Your task to perform on an android device: Show me recent news Image 0: 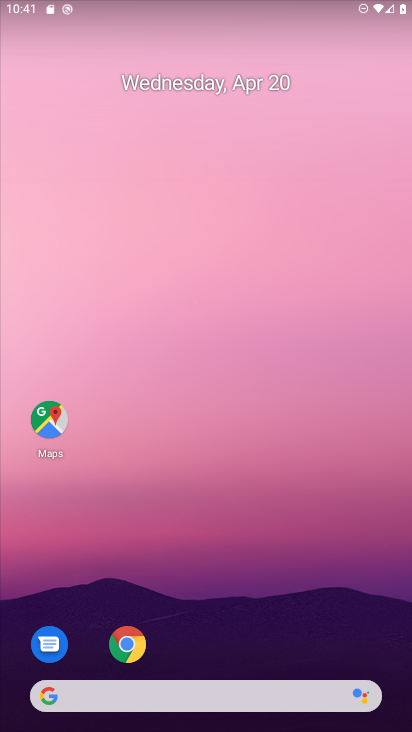
Step 0: drag from (366, 625) to (257, 52)
Your task to perform on an android device: Show me recent news Image 1: 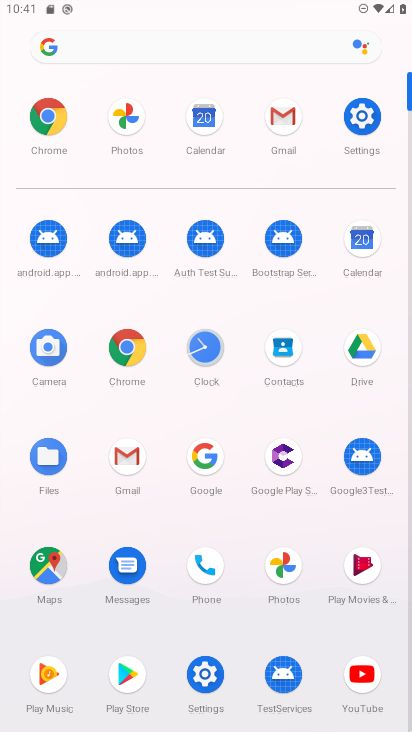
Step 1: click (118, 363)
Your task to perform on an android device: Show me recent news Image 2: 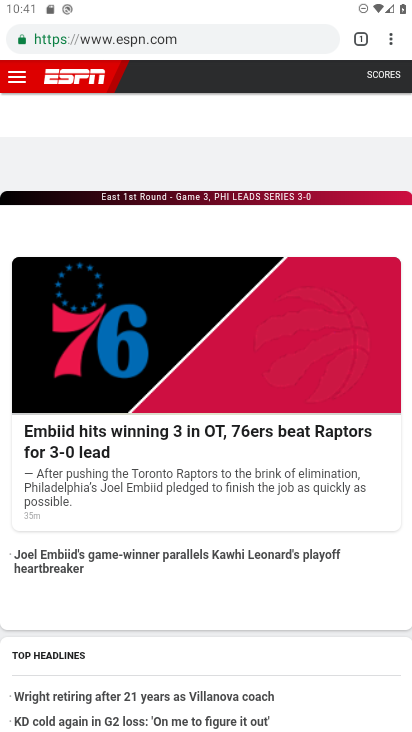
Step 2: press back button
Your task to perform on an android device: Show me recent news Image 3: 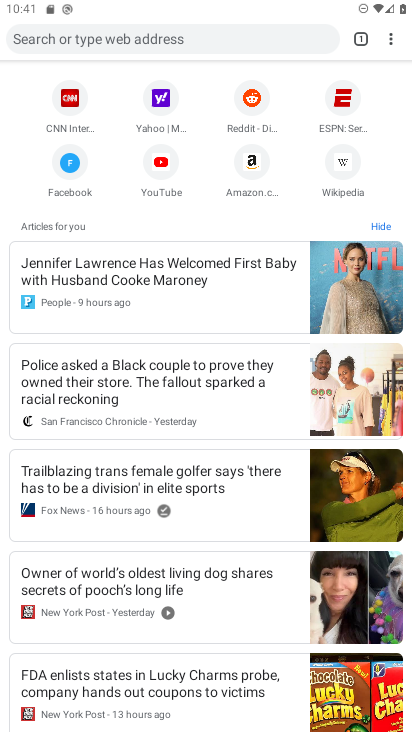
Step 3: click (177, 309)
Your task to perform on an android device: Show me recent news Image 4: 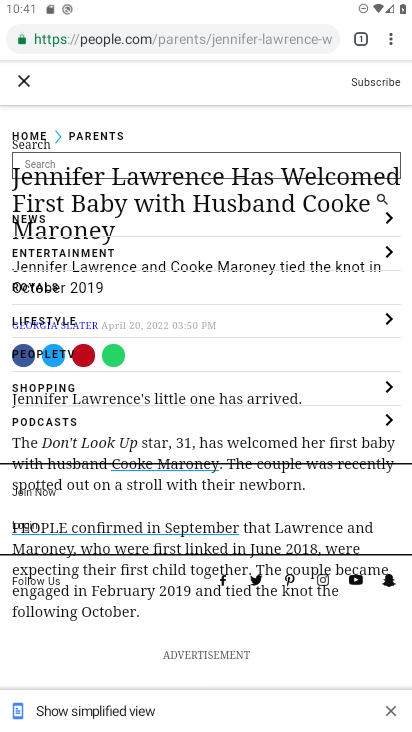
Step 4: task complete